Your task to perform on an android device: Open location settings Image 0: 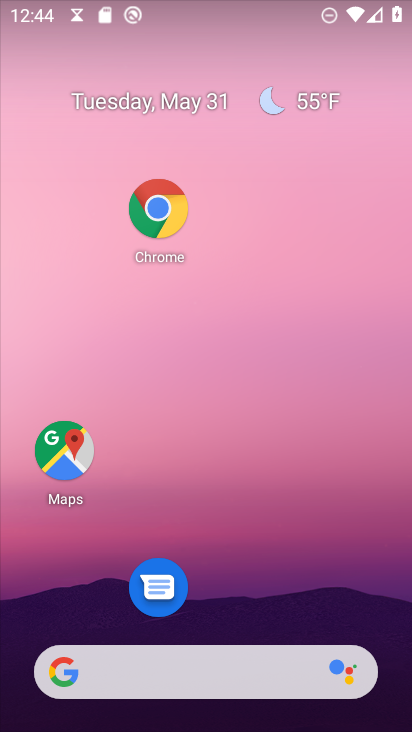
Step 0: drag from (231, 606) to (275, 127)
Your task to perform on an android device: Open location settings Image 1: 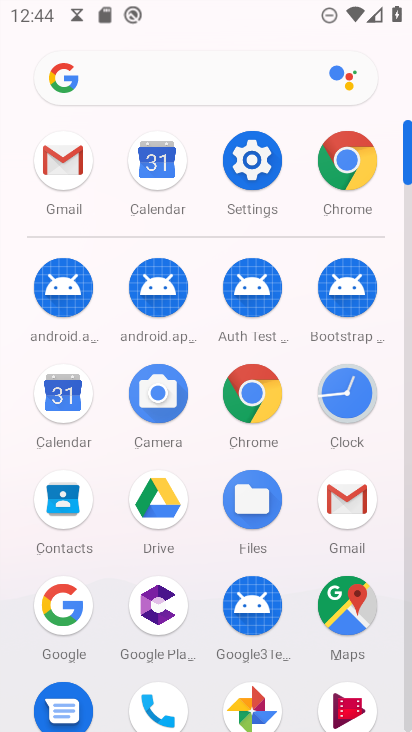
Step 1: click (251, 166)
Your task to perform on an android device: Open location settings Image 2: 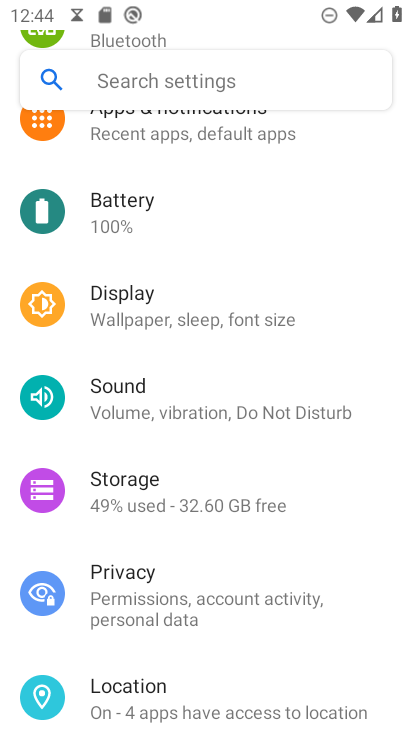
Step 2: click (107, 693)
Your task to perform on an android device: Open location settings Image 3: 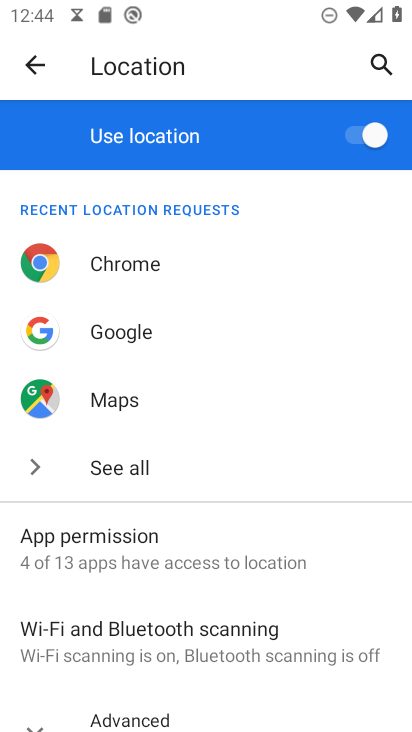
Step 3: task complete